Your task to perform on an android device: Go to calendar. Show me events next week Image 0: 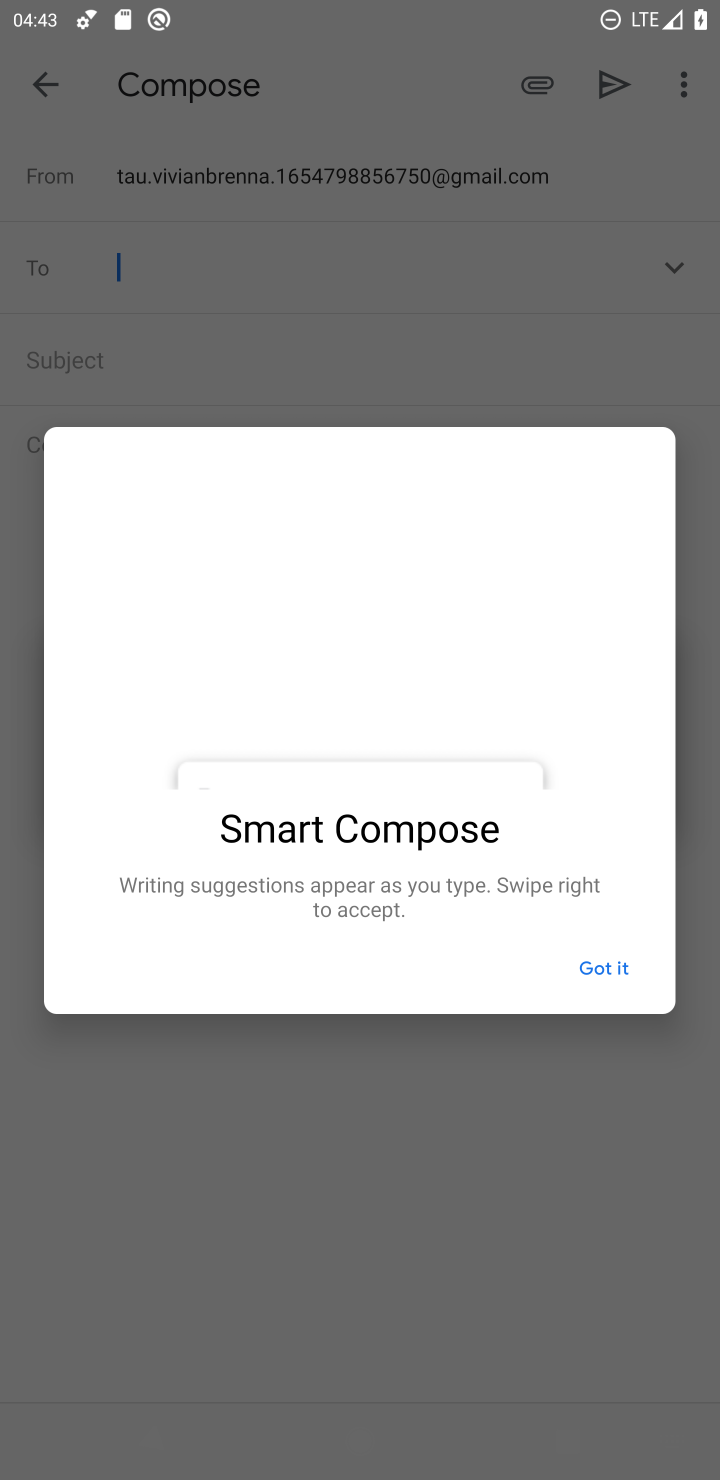
Step 0: click (671, 1267)
Your task to perform on an android device: Go to calendar. Show me events next week Image 1: 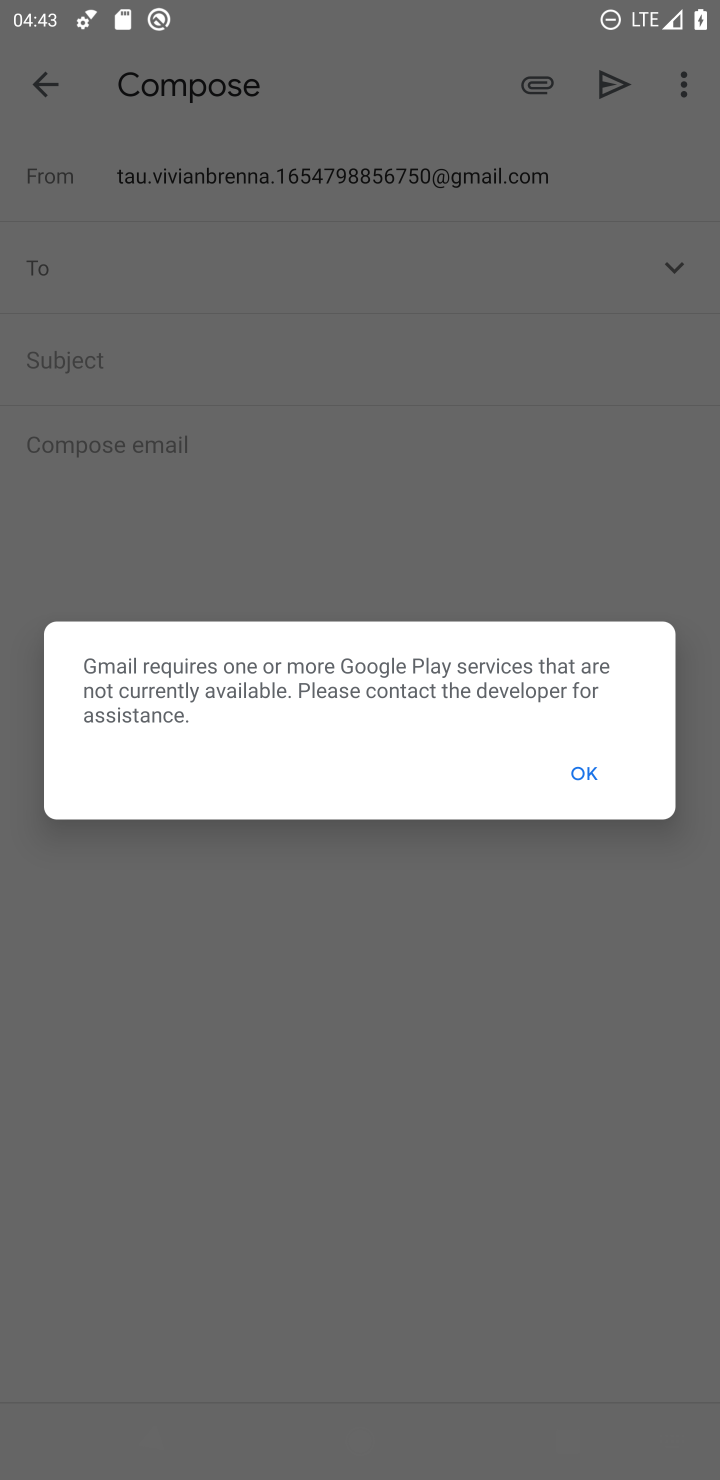
Step 1: press home button
Your task to perform on an android device: Go to calendar. Show me events next week Image 2: 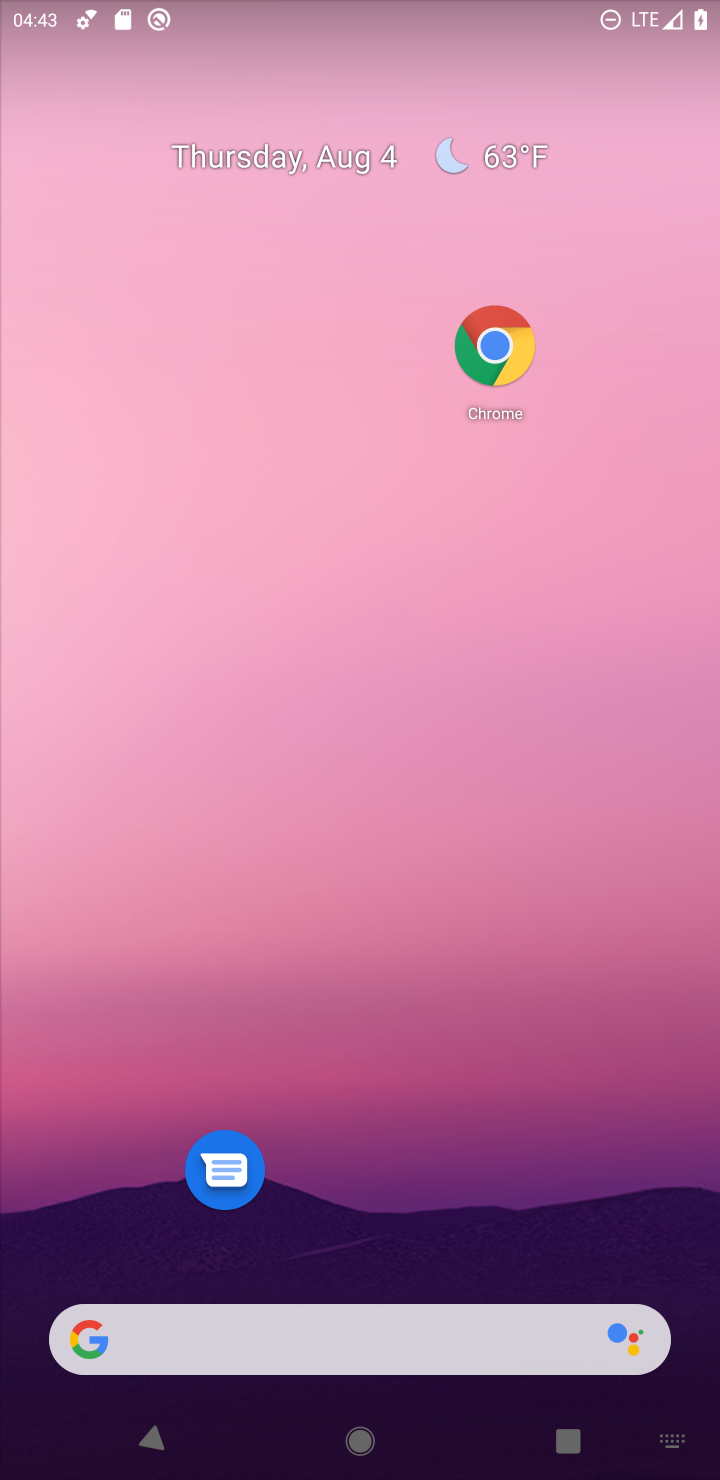
Step 2: drag from (638, 1203) to (586, 41)
Your task to perform on an android device: Go to calendar. Show me events next week Image 3: 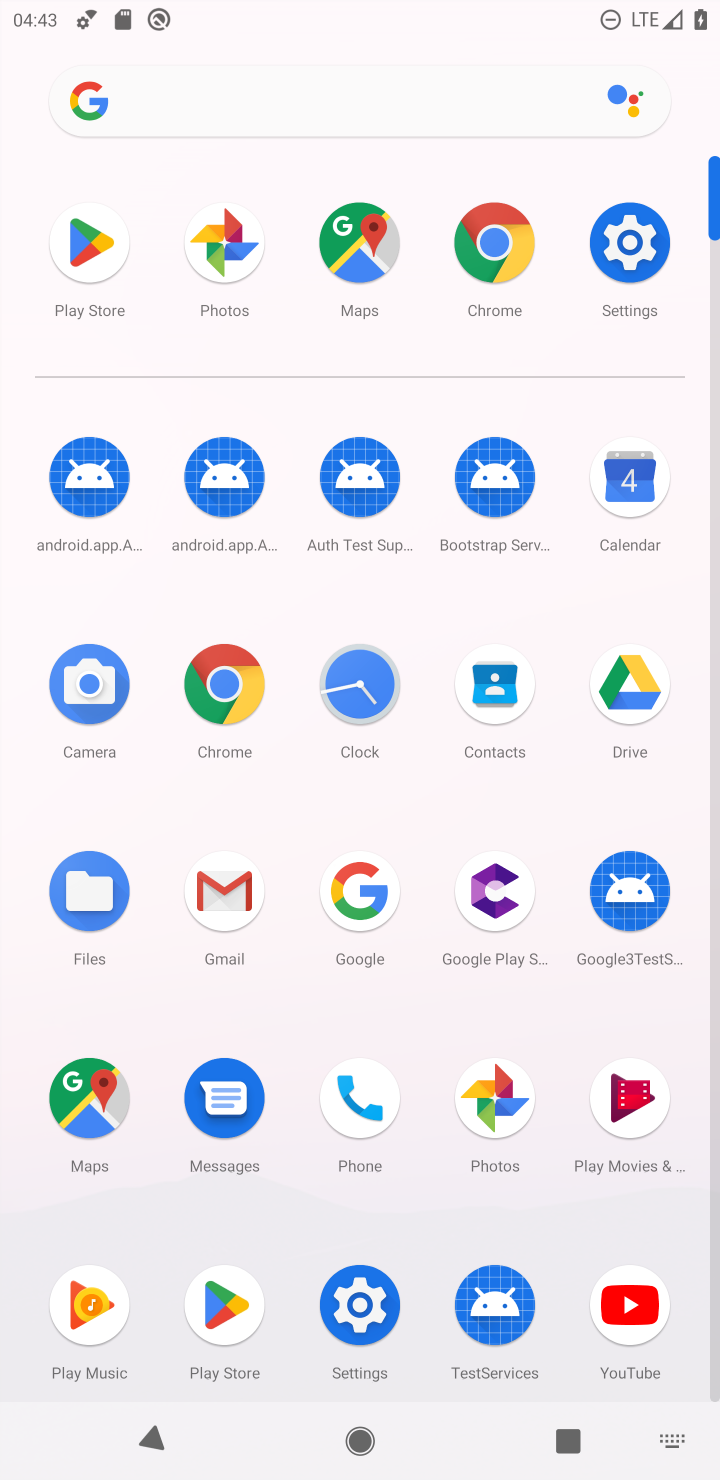
Step 3: click (617, 491)
Your task to perform on an android device: Go to calendar. Show me events next week Image 4: 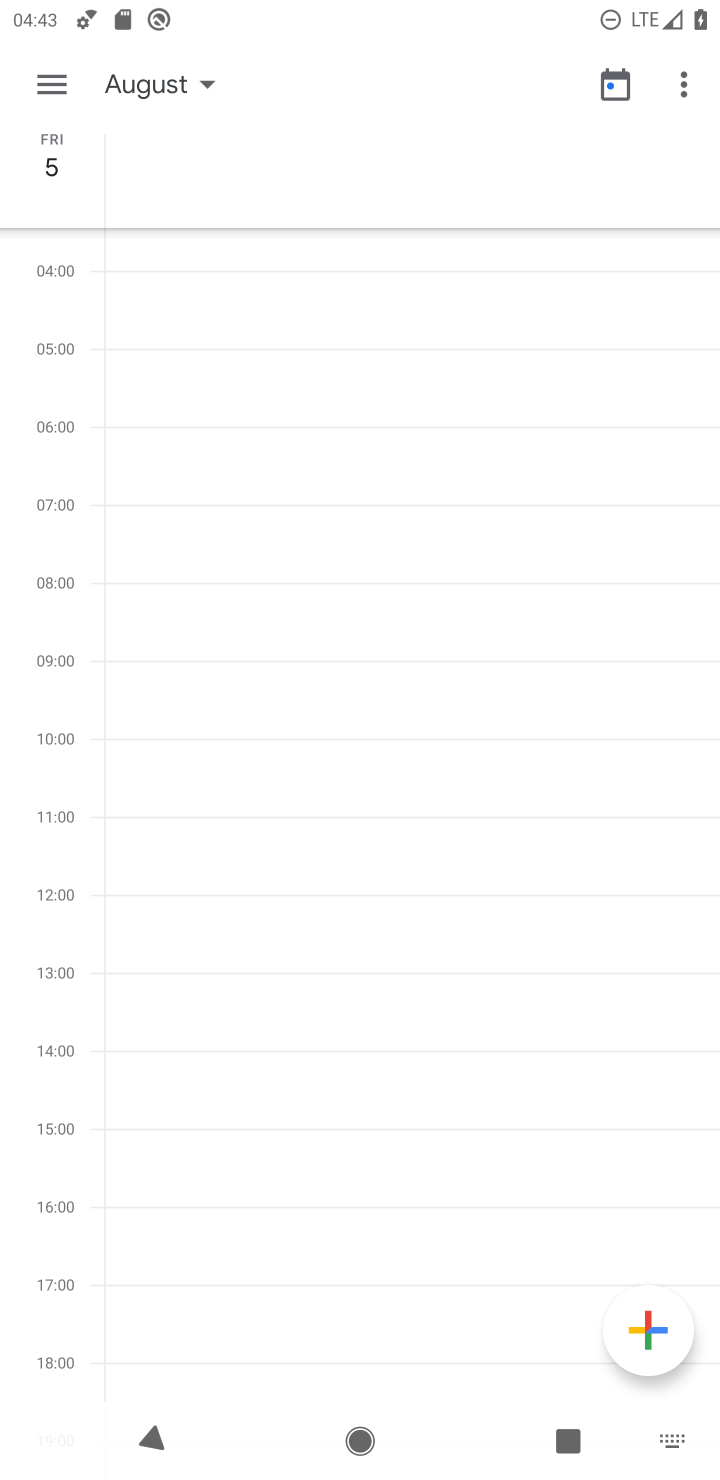
Step 4: click (56, 91)
Your task to perform on an android device: Go to calendar. Show me events next week Image 5: 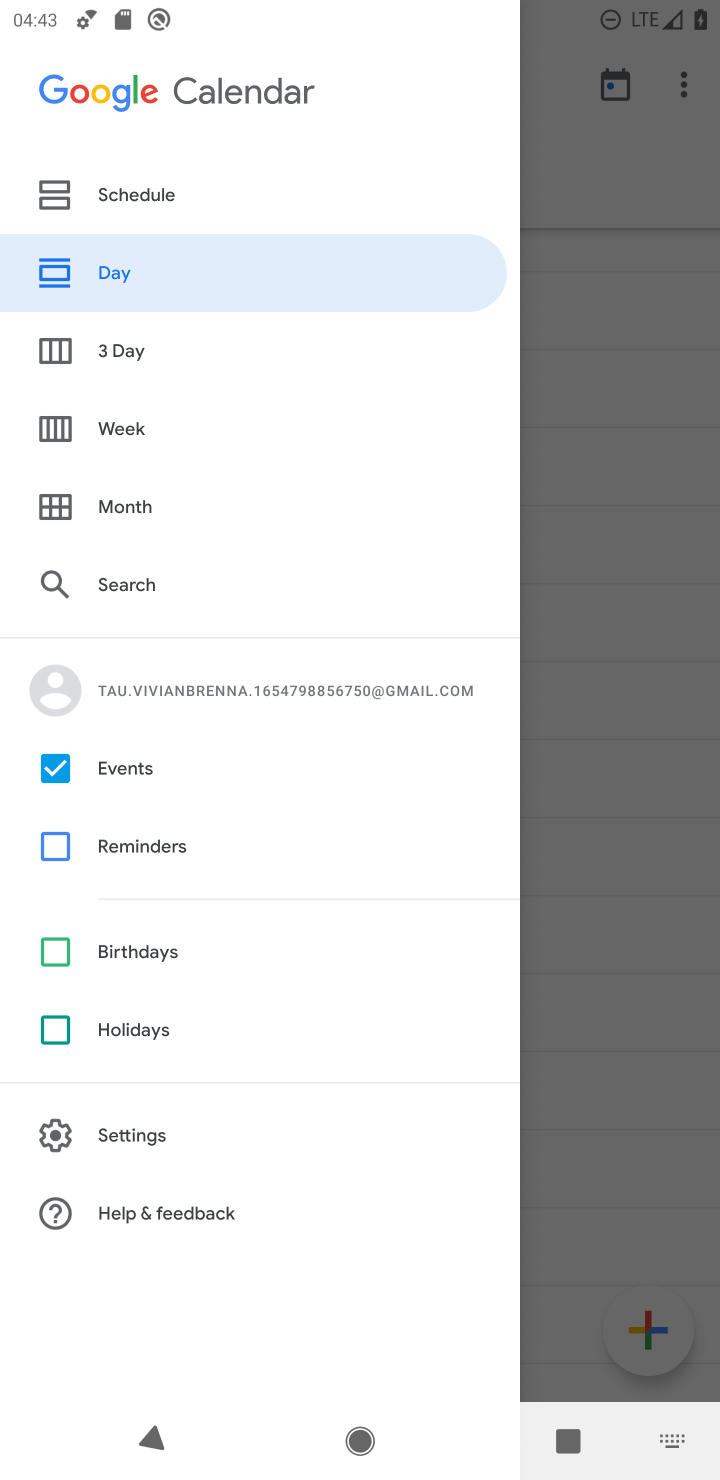
Step 5: click (113, 433)
Your task to perform on an android device: Go to calendar. Show me events next week Image 6: 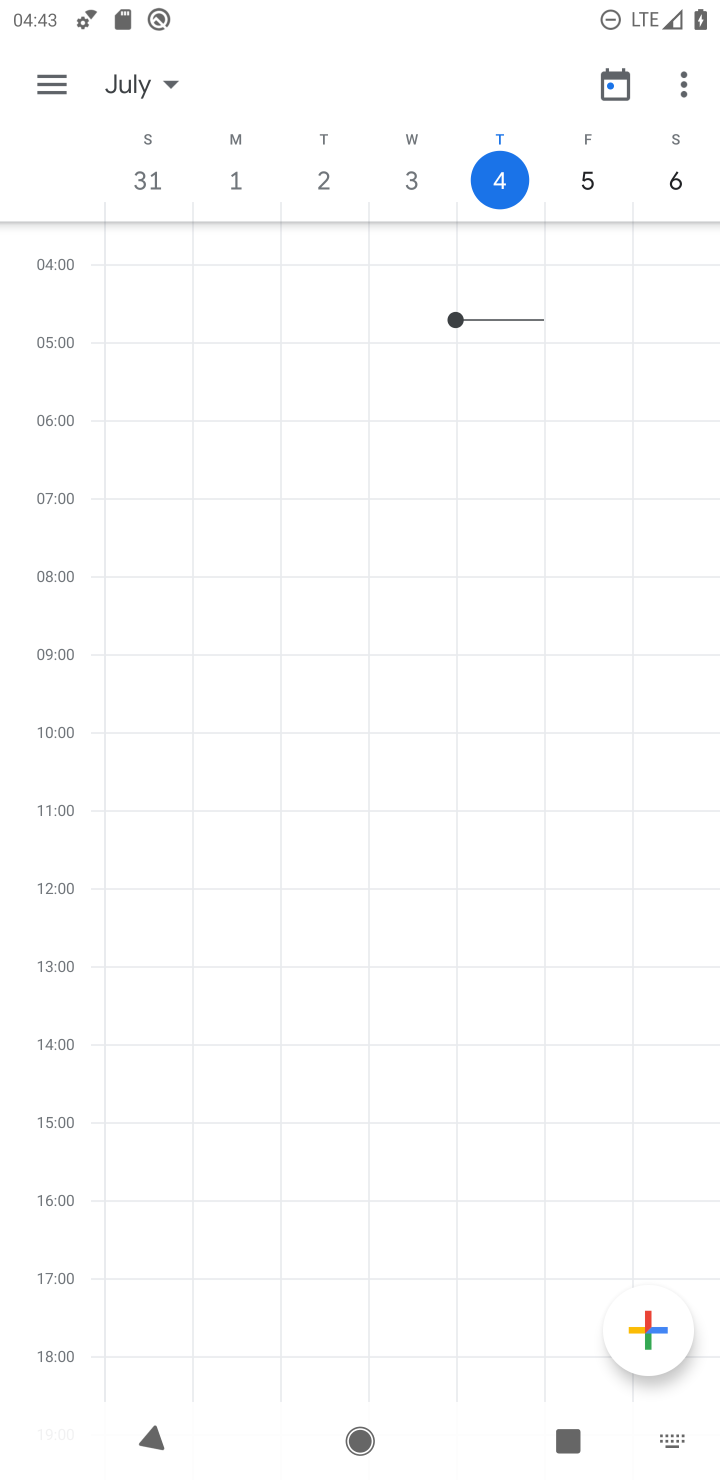
Step 6: task complete